Your task to perform on an android device: Open Wikipedia Image 0: 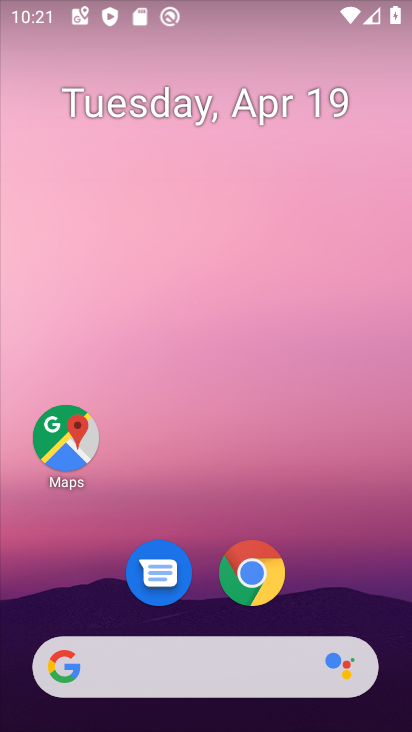
Step 0: click (262, 564)
Your task to perform on an android device: Open Wikipedia Image 1: 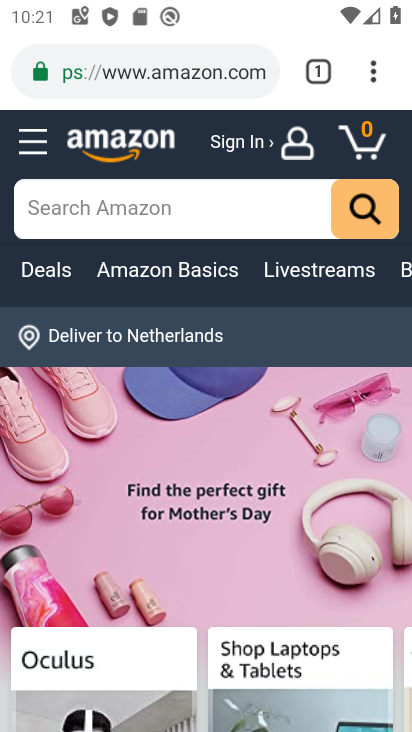
Step 1: click (322, 70)
Your task to perform on an android device: Open Wikipedia Image 2: 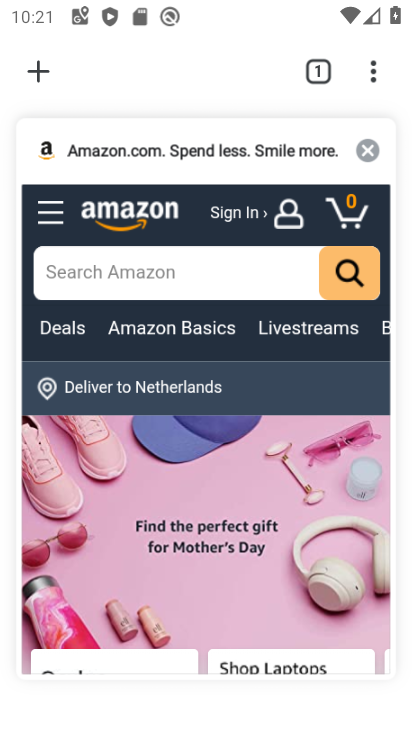
Step 2: click (38, 68)
Your task to perform on an android device: Open Wikipedia Image 3: 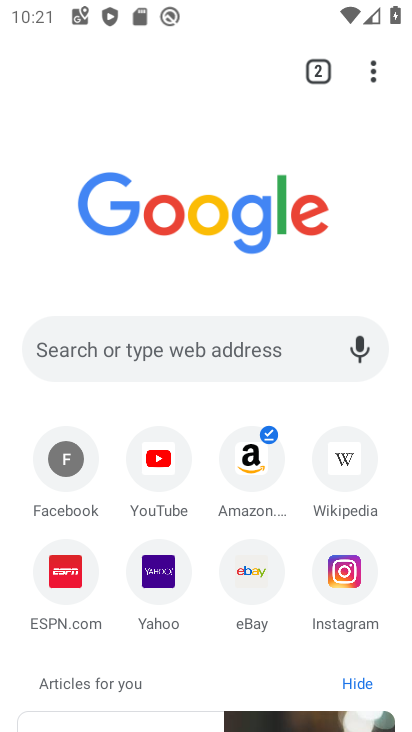
Step 3: click (340, 474)
Your task to perform on an android device: Open Wikipedia Image 4: 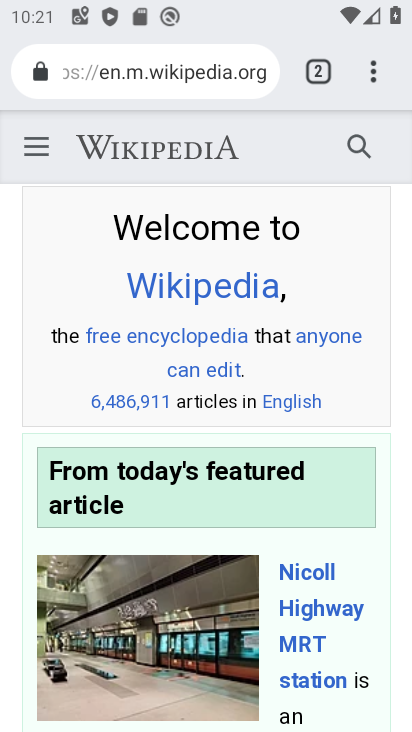
Step 4: task complete